Your task to perform on an android device: refresh tabs in the chrome app Image 0: 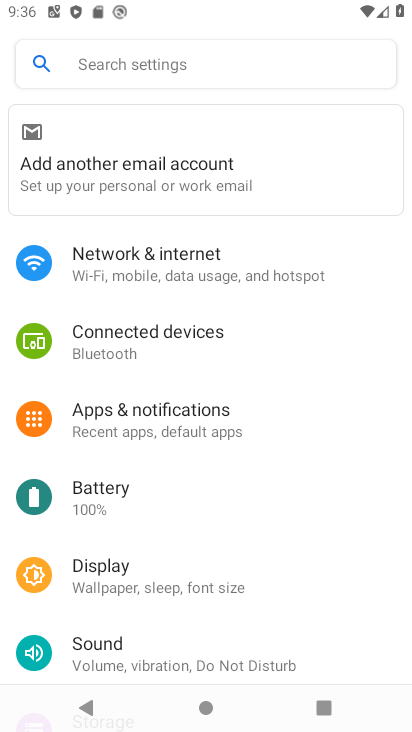
Step 0: press home button
Your task to perform on an android device: refresh tabs in the chrome app Image 1: 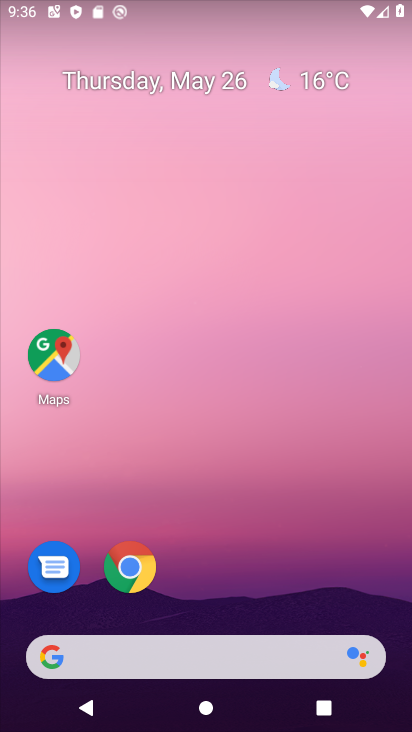
Step 1: click (126, 565)
Your task to perform on an android device: refresh tabs in the chrome app Image 2: 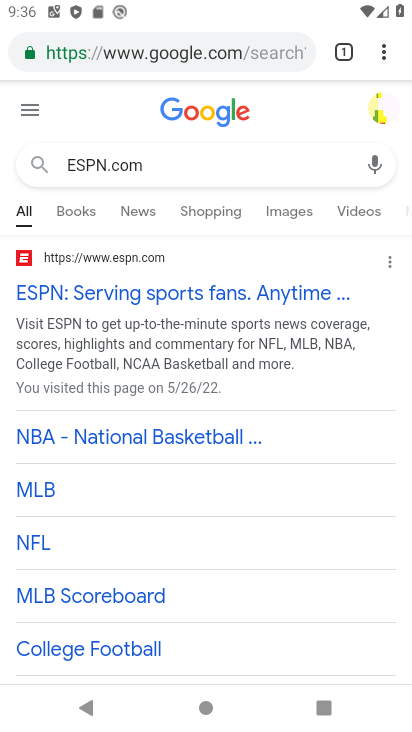
Step 2: click (379, 47)
Your task to perform on an android device: refresh tabs in the chrome app Image 3: 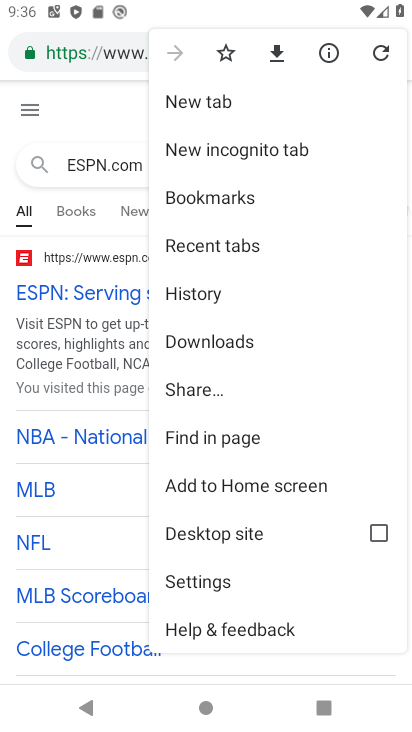
Step 3: click (378, 53)
Your task to perform on an android device: refresh tabs in the chrome app Image 4: 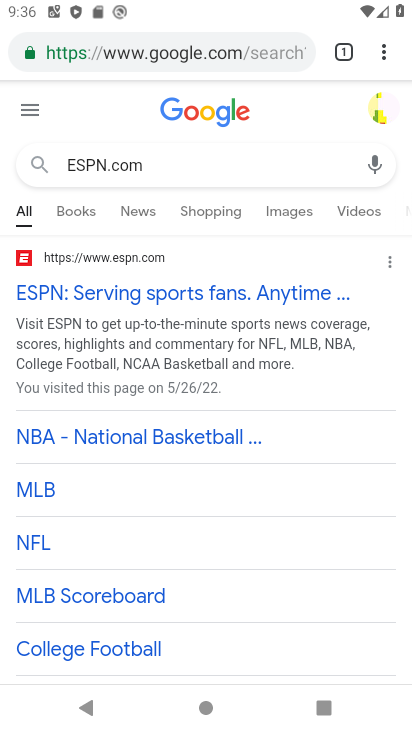
Step 4: task complete